Your task to perform on an android device: add a contact Image 0: 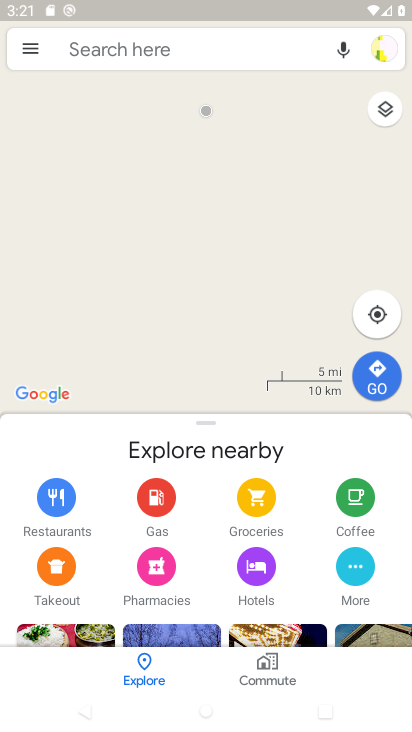
Step 0: press home button
Your task to perform on an android device: add a contact Image 1: 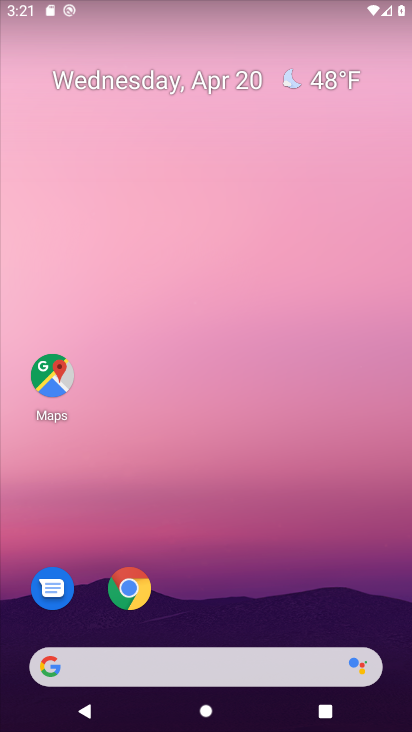
Step 1: drag from (327, 602) to (359, 171)
Your task to perform on an android device: add a contact Image 2: 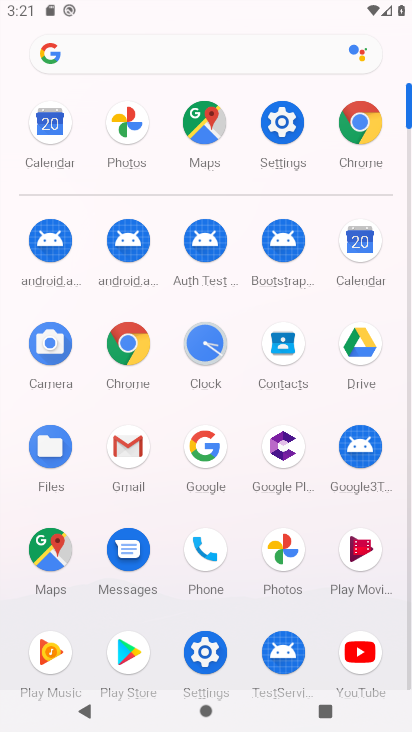
Step 2: click (284, 350)
Your task to perform on an android device: add a contact Image 3: 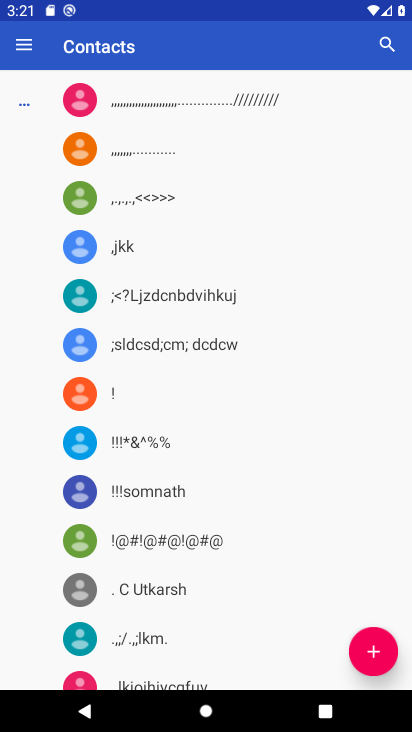
Step 3: click (391, 641)
Your task to perform on an android device: add a contact Image 4: 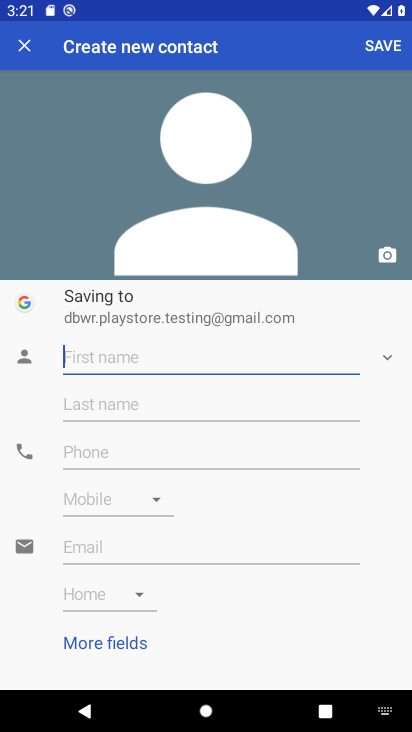
Step 4: type "lollol"
Your task to perform on an android device: add a contact Image 5: 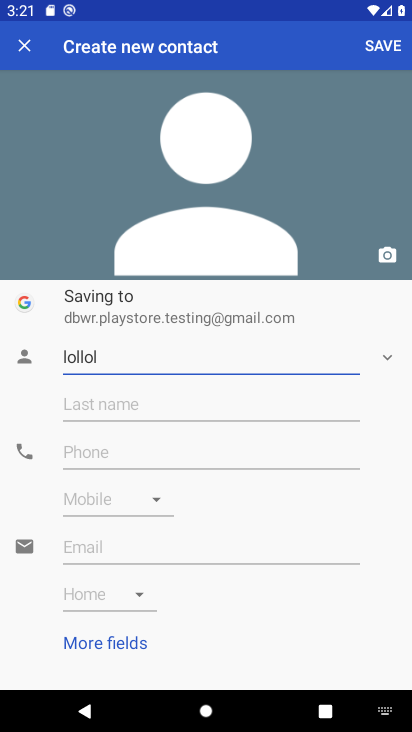
Step 5: click (254, 455)
Your task to perform on an android device: add a contact Image 6: 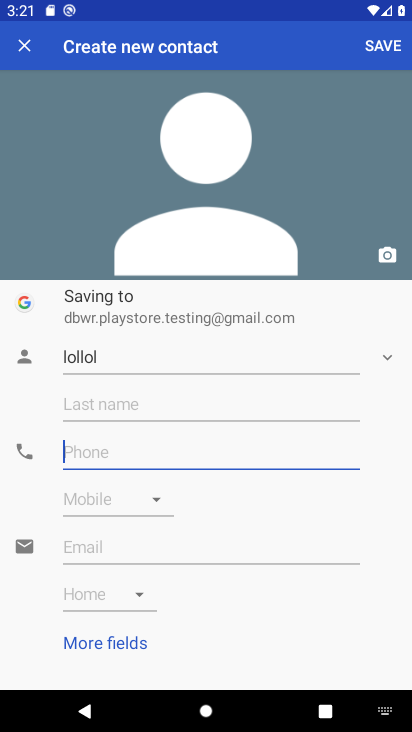
Step 6: type "1234567890"
Your task to perform on an android device: add a contact Image 7: 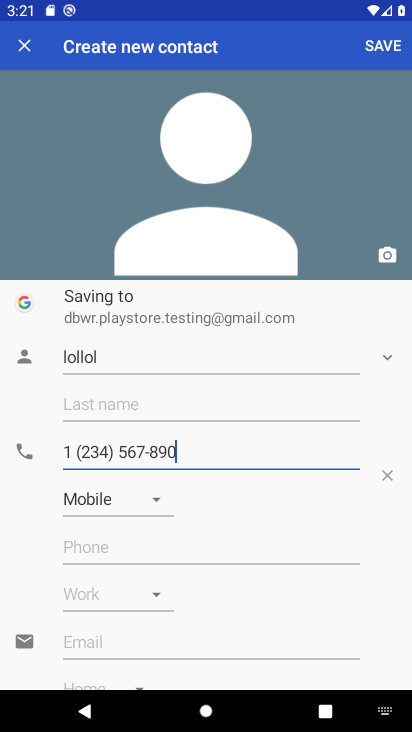
Step 7: click (386, 47)
Your task to perform on an android device: add a contact Image 8: 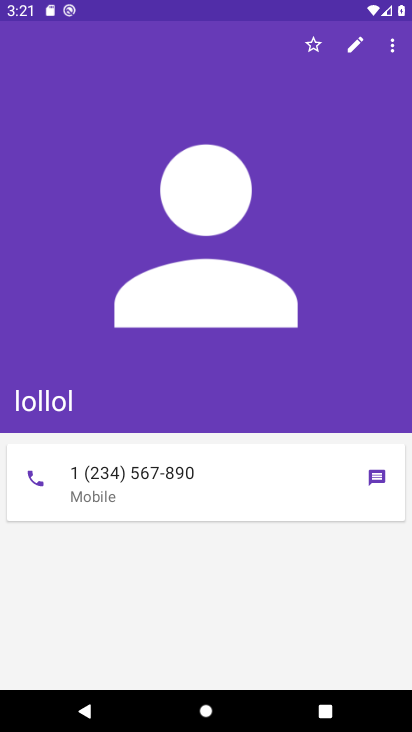
Step 8: task complete